Your task to perform on an android device: turn off notifications settings in the gmail app Image 0: 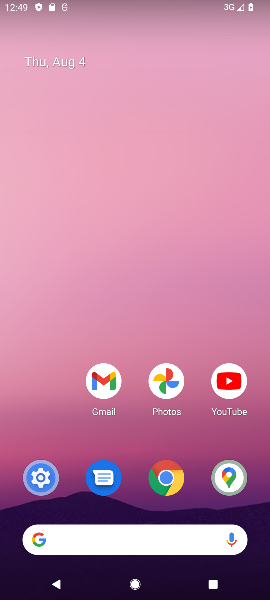
Step 0: press home button
Your task to perform on an android device: turn off notifications settings in the gmail app Image 1: 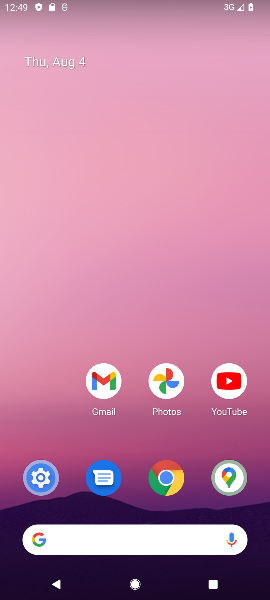
Step 1: drag from (14, 400) to (151, 57)
Your task to perform on an android device: turn off notifications settings in the gmail app Image 2: 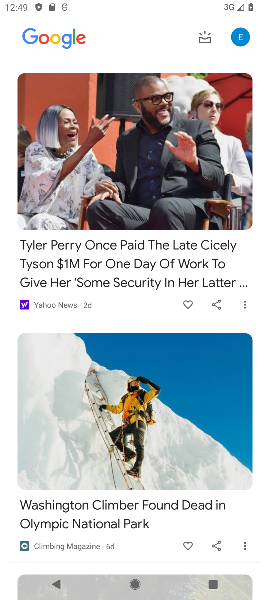
Step 2: drag from (266, 443) to (76, 440)
Your task to perform on an android device: turn off notifications settings in the gmail app Image 3: 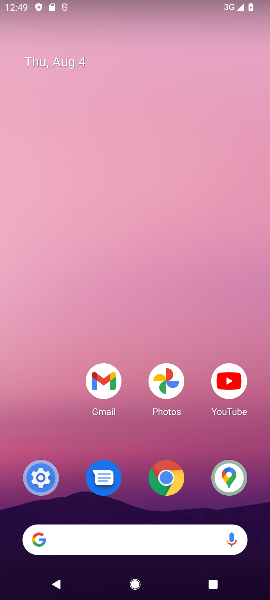
Step 3: drag from (199, 441) to (183, 137)
Your task to perform on an android device: turn off notifications settings in the gmail app Image 4: 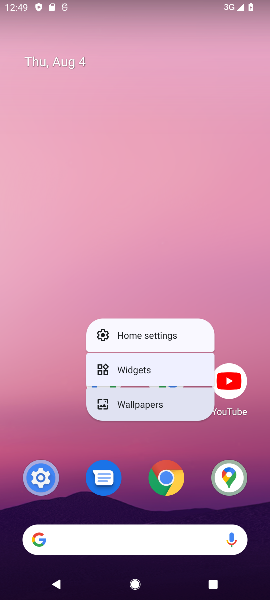
Step 4: click (225, 195)
Your task to perform on an android device: turn off notifications settings in the gmail app Image 5: 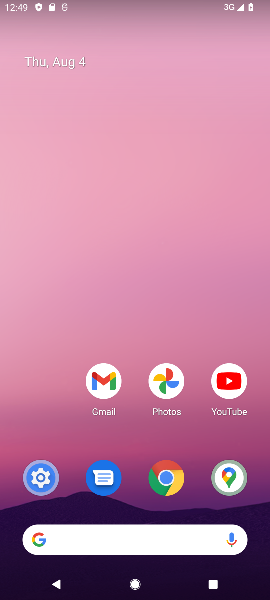
Step 5: click (99, 385)
Your task to perform on an android device: turn off notifications settings in the gmail app Image 6: 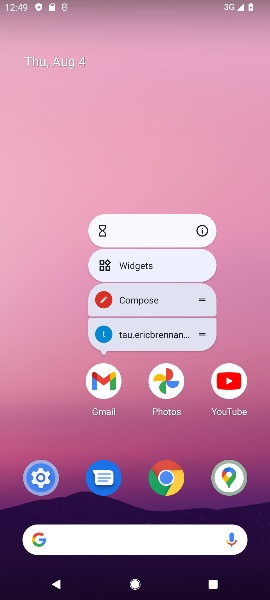
Step 6: click (196, 232)
Your task to perform on an android device: turn off notifications settings in the gmail app Image 7: 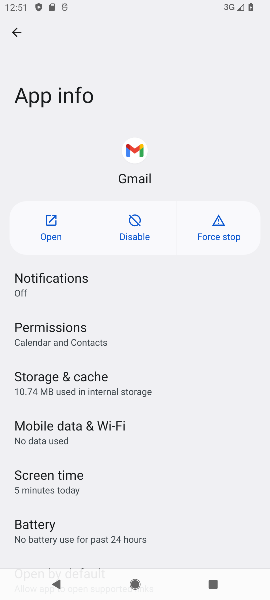
Step 7: task complete